Your task to perform on an android device: check google app version Image 0: 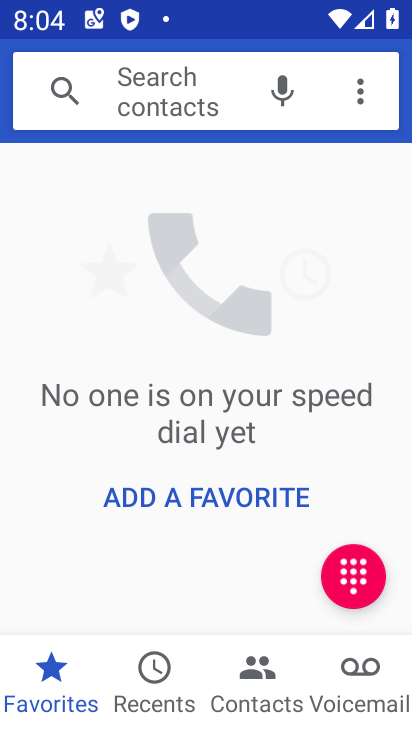
Step 0: press home button
Your task to perform on an android device: check google app version Image 1: 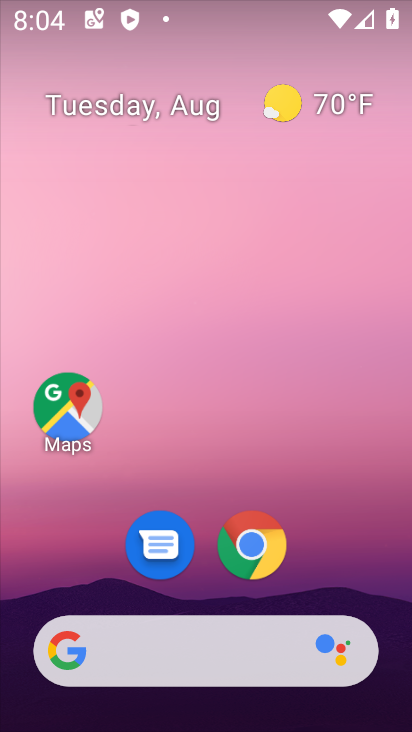
Step 1: drag from (229, 667) to (271, 107)
Your task to perform on an android device: check google app version Image 2: 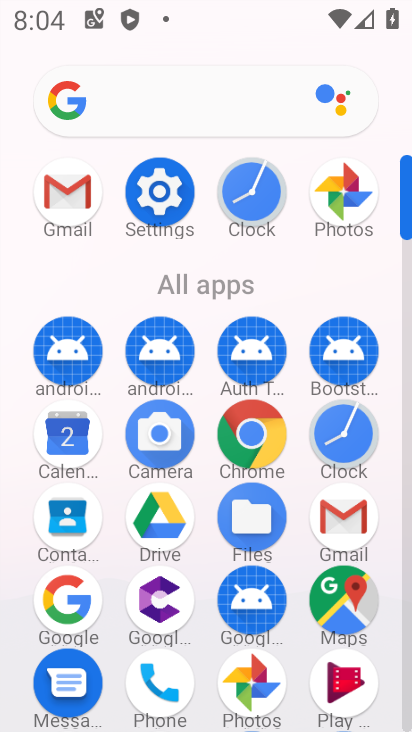
Step 2: drag from (247, 531) to (292, 186)
Your task to perform on an android device: check google app version Image 3: 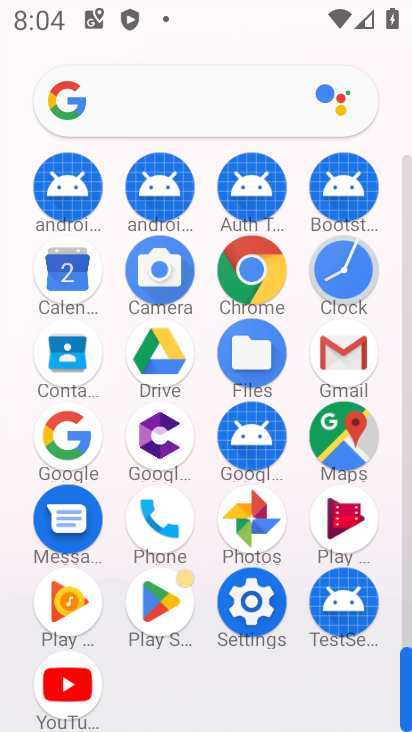
Step 3: click (85, 427)
Your task to perform on an android device: check google app version Image 4: 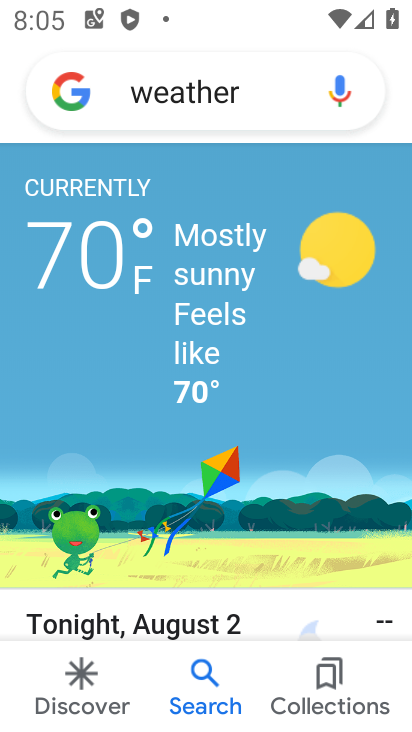
Step 4: drag from (213, 511) to (227, 222)
Your task to perform on an android device: check google app version Image 5: 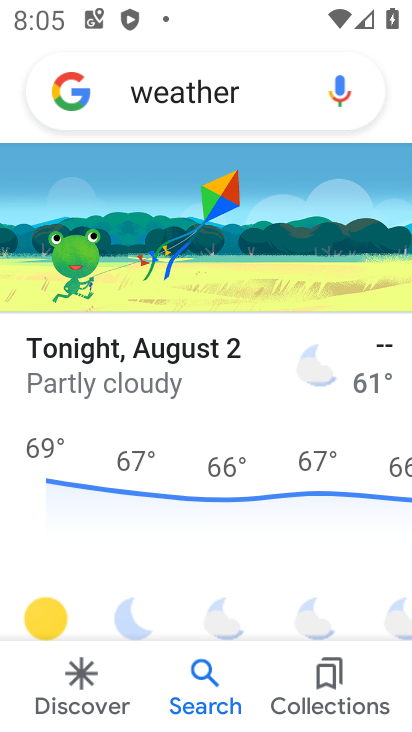
Step 5: drag from (237, 518) to (245, 305)
Your task to perform on an android device: check google app version Image 6: 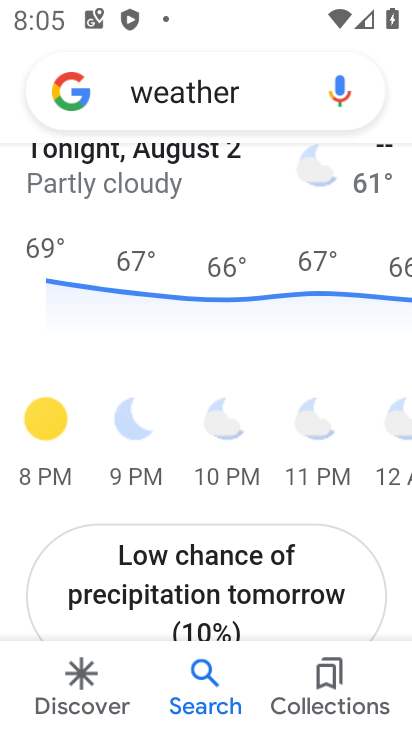
Step 6: drag from (259, 293) to (227, 681)
Your task to perform on an android device: check google app version Image 7: 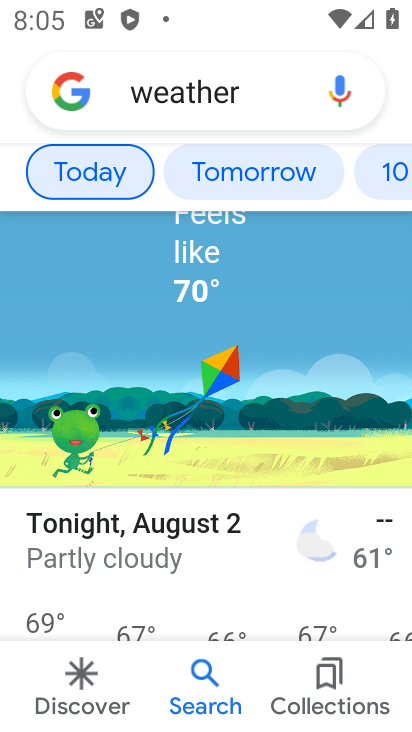
Step 7: drag from (279, 322) to (245, 603)
Your task to perform on an android device: check google app version Image 8: 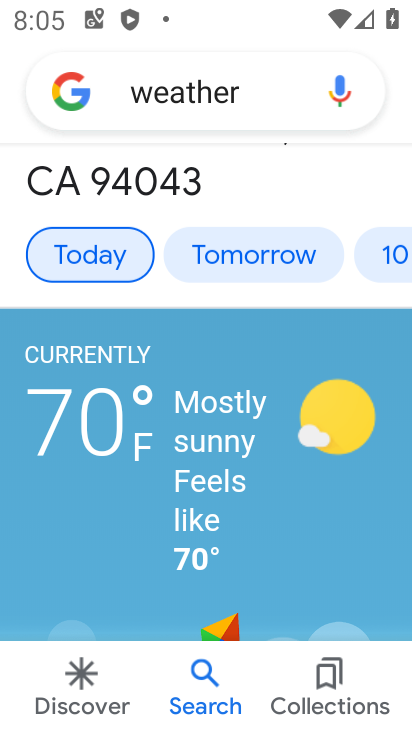
Step 8: drag from (301, 308) to (282, 662)
Your task to perform on an android device: check google app version Image 9: 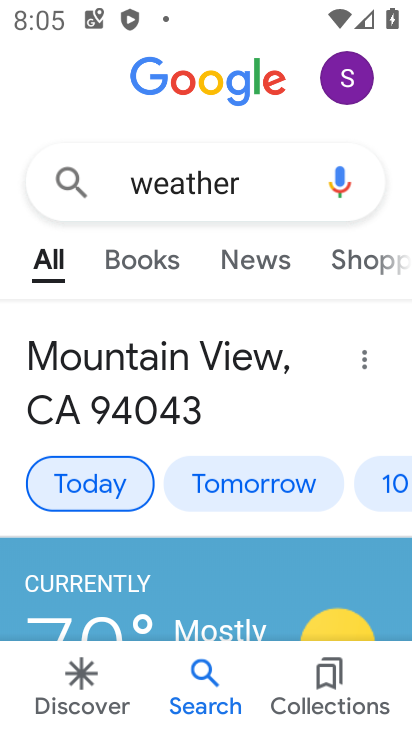
Step 9: click (354, 94)
Your task to perform on an android device: check google app version Image 10: 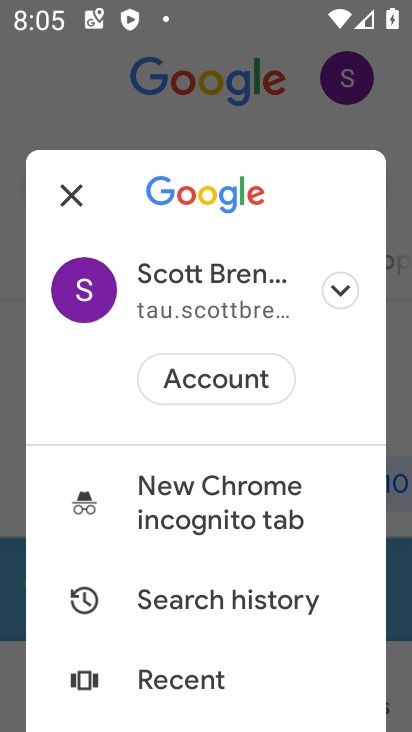
Step 10: drag from (159, 634) to (194, 215)
Your task to perform on an android device: check google app version Image 11: 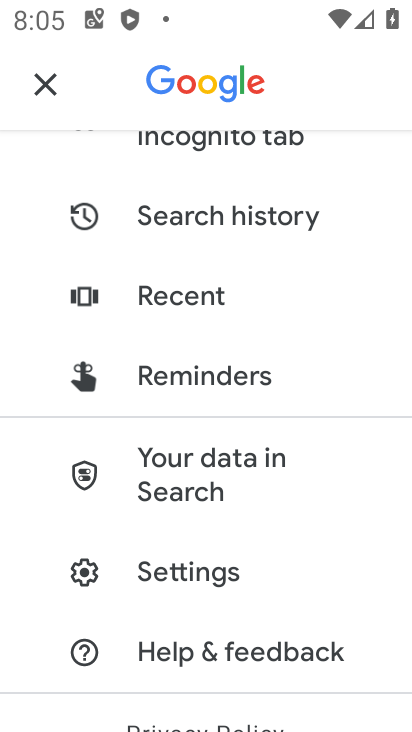
Step 11: click (156, 577)
Your task to perform on an android device: check google app version Image 12: 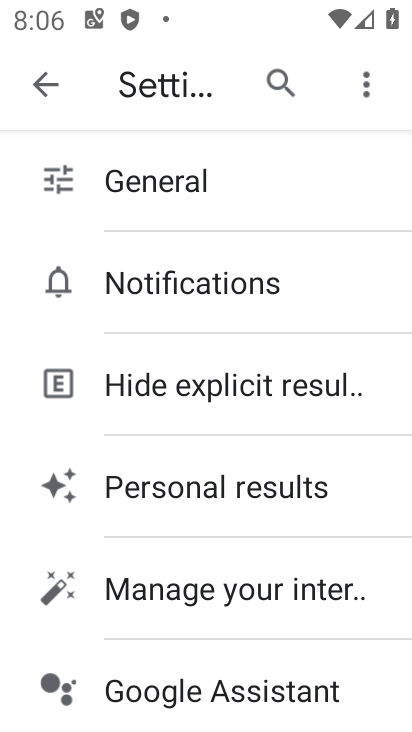
Step 12: drag from (157, 582) to (187, 80)
Your task to perform on an android device: check google app version Image 13: 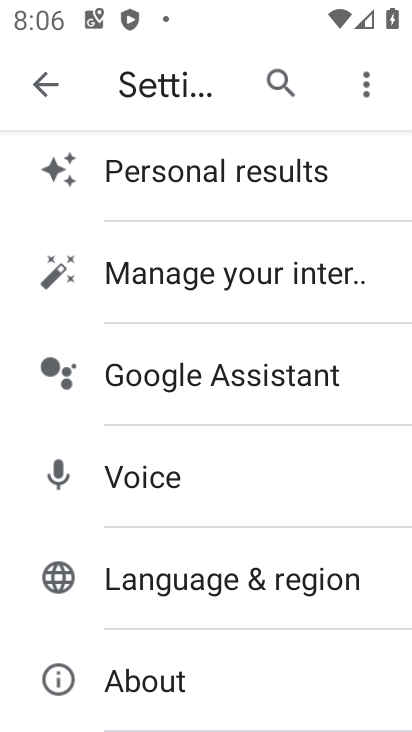
Step 13: click (199, 679)
Your task to perform on an android device: check google app version Image 14: 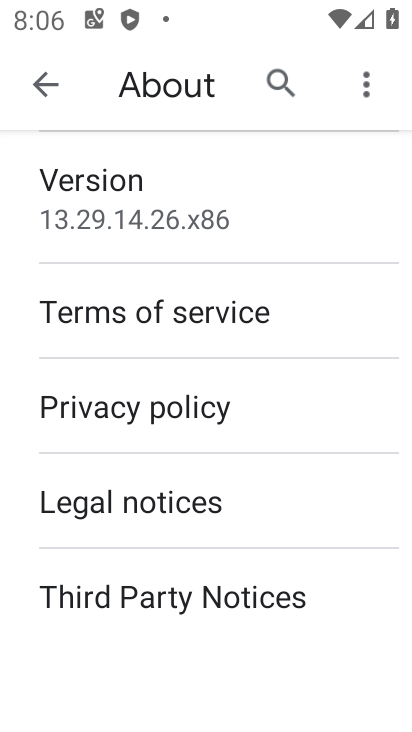
Step 14: click (146, 207)
Your task to perform on an android device: check google app version Image 15: 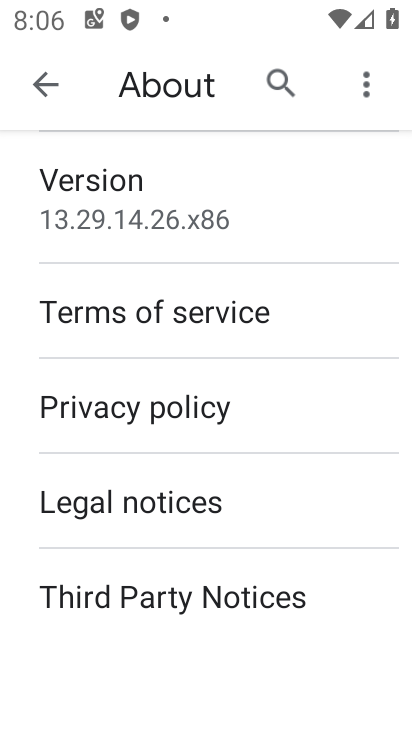
Step 15: task complete